Your task to perform on an android device: choose inbox layout in the gmail app Image 0: 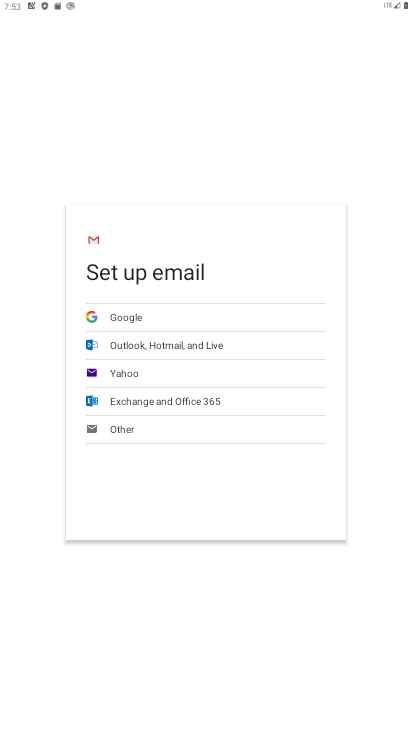
Step 0: press home button
Your task to perform on an android device: choose inbox layout in the gmail app Image 1: 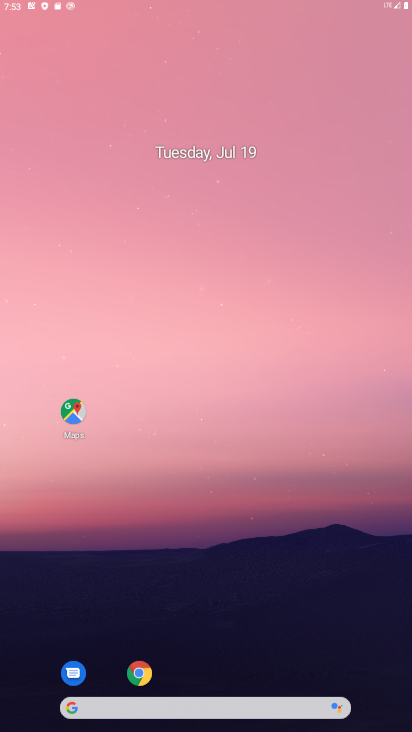
Step 1: drag from (374, 703) to (296, 82)
Your task to perform on an android device: choose inbox layout in the gmail app Image 2: 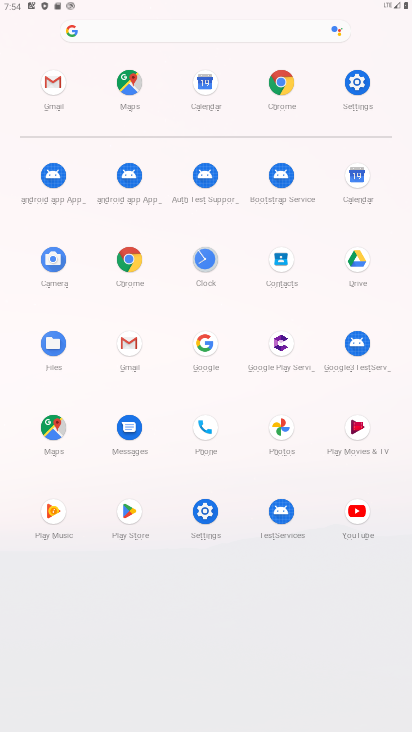
Step 2: click (140, 348)
Your task to perform on an android device: choose inbox layout in the gmail app Image 3: 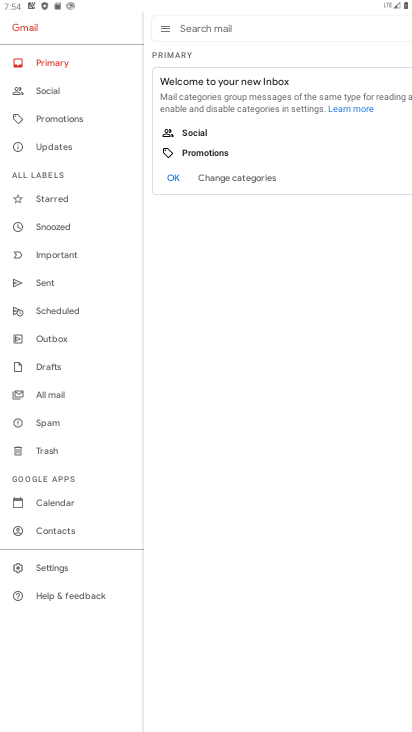
Step 3: task complete